Your task to perform on an android device: delete the emails in spam in the gmail app Image 0: 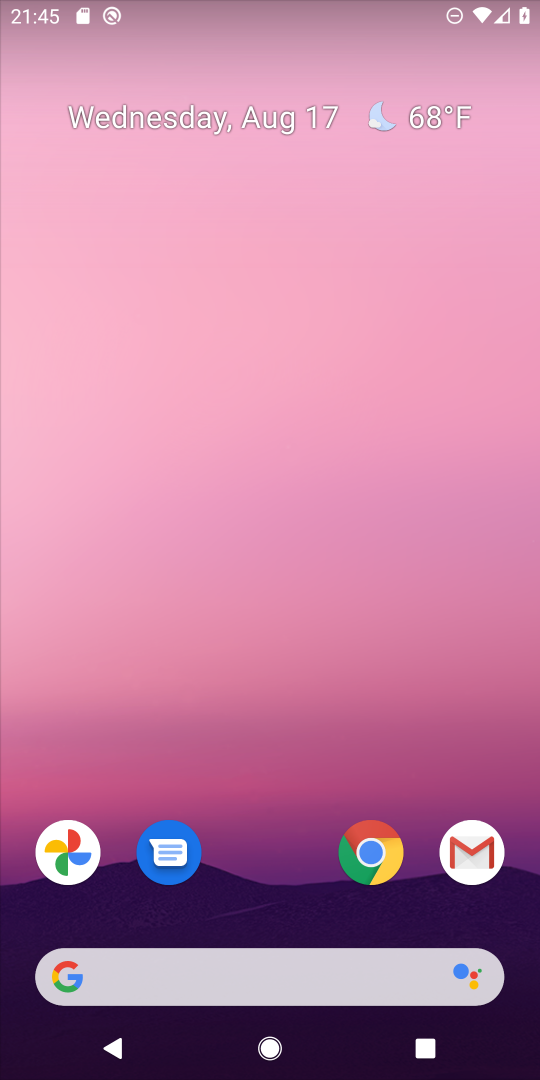
Step 0: click (475, 857)
Your task to perform on an android device: delete the emails in spam in the gmail app Image 1: 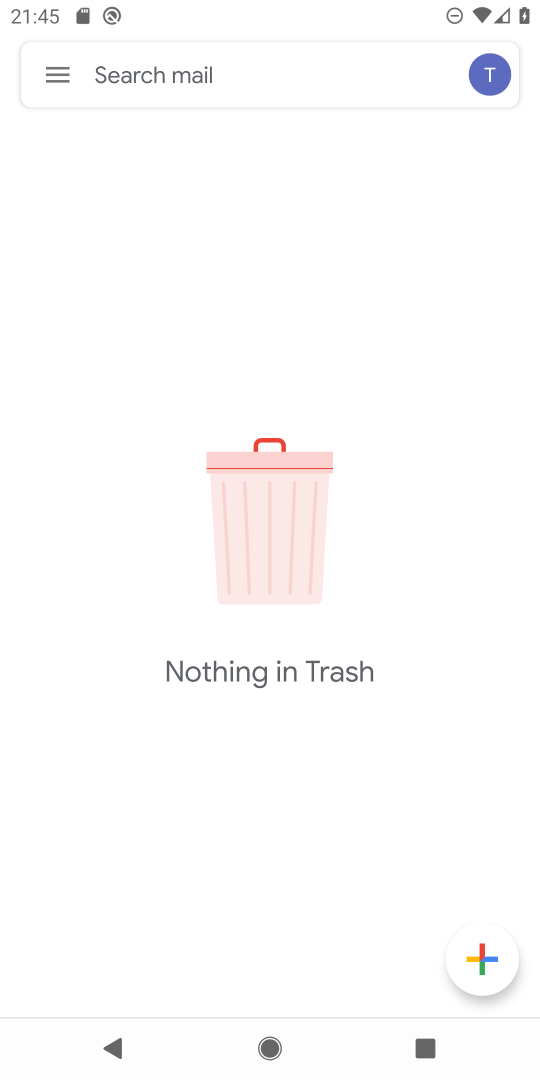
Step 1: click (56, 71)
Your task to perform on an android device: delete the emails in spam in the gmail app Image 2: 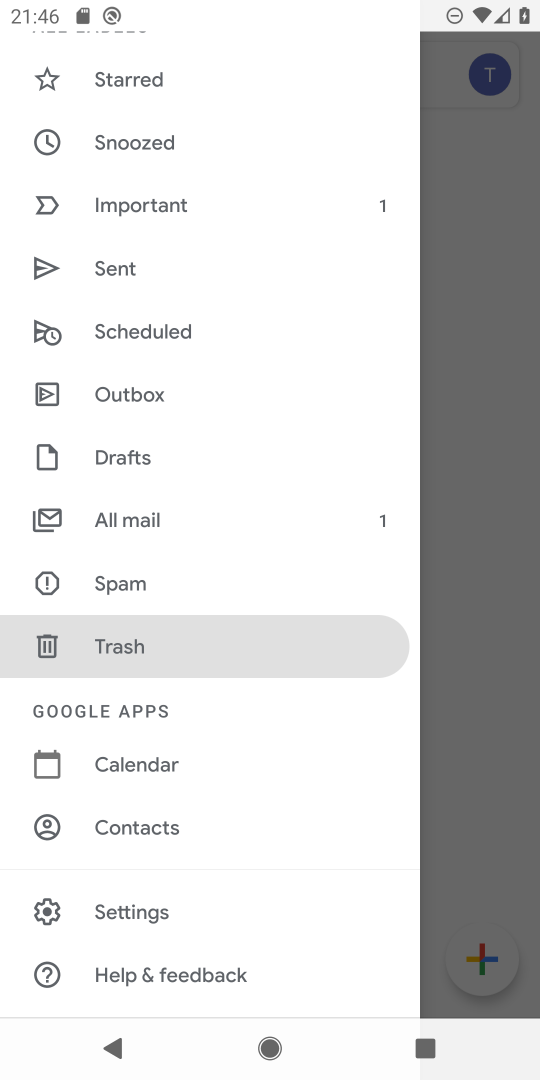
Step 2: click (117, 580)
Your task to perform on an android device: delete the emails in spam in the gmail app Image 3: 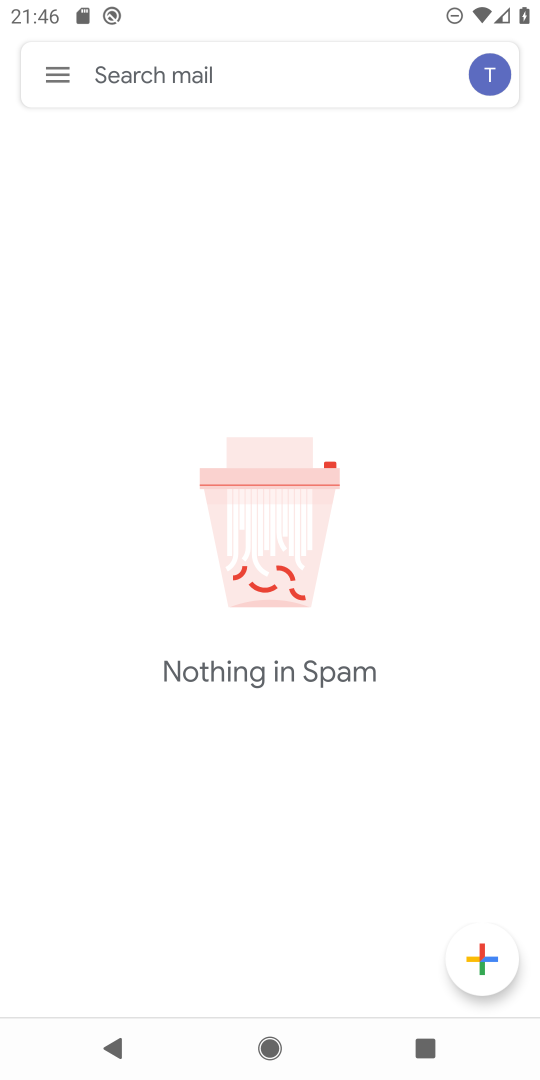
Step 3: task complete